Your task to perform on an android device: find which apps use the phone's location Image 0: 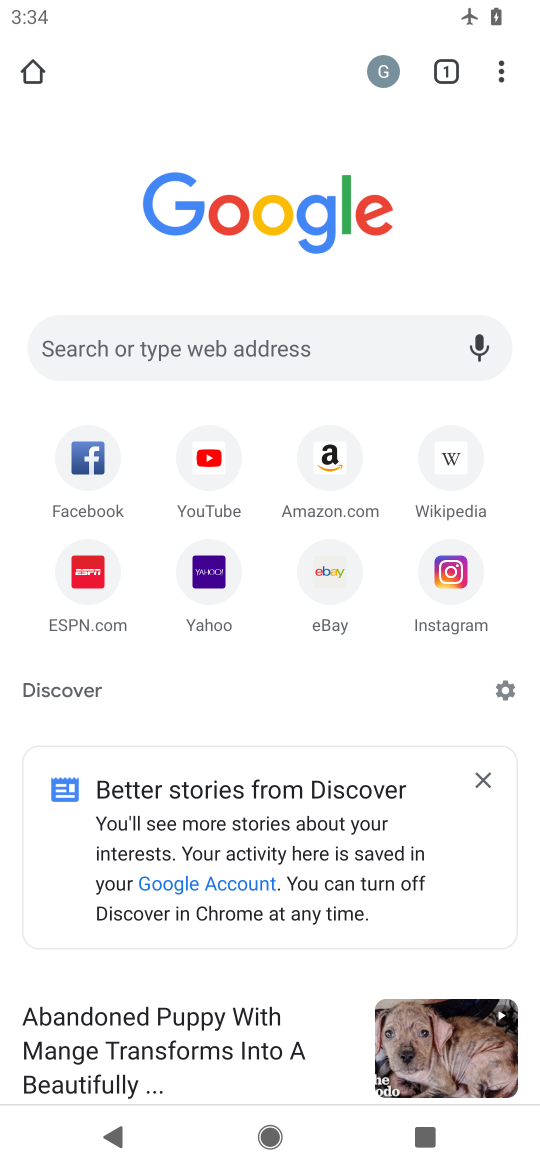
Step 0: press back button
Your task to perform on an android device: find which apps use the phone's location Image 1: 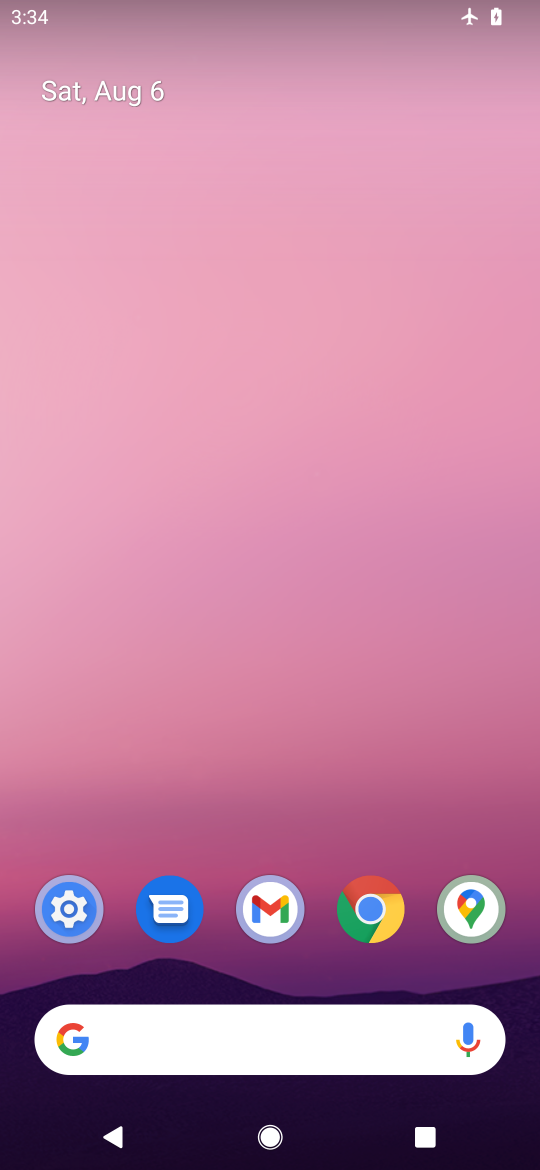
Step 1: click (27, 897)
Your task to perform on an android device: find which apps use the phone's location Image 2: 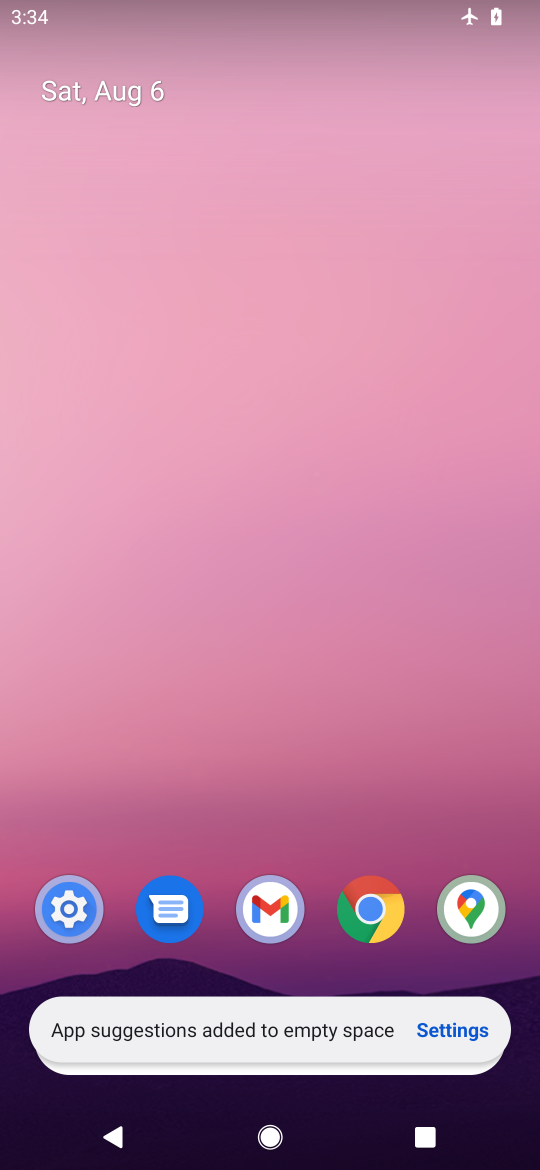
Step 2: click (73, 905)
Your task to perform on an android device: find which apps use the phone's location Image 3: 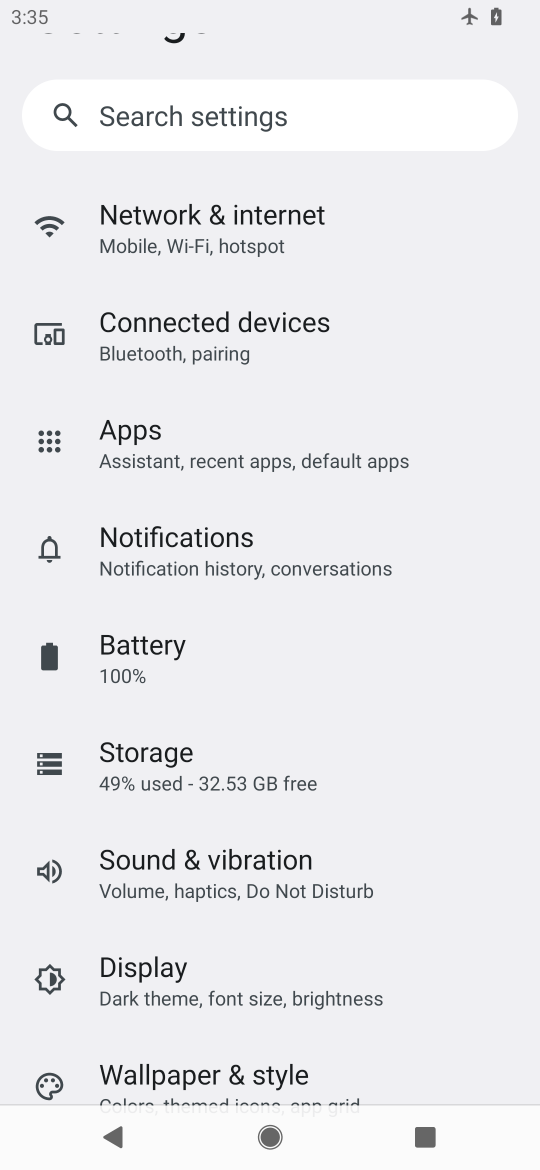
Step 3: drag from (245, 1029) to (433, 287)
Your task to perform on an android device: find which apps use the phone's location Image 4: 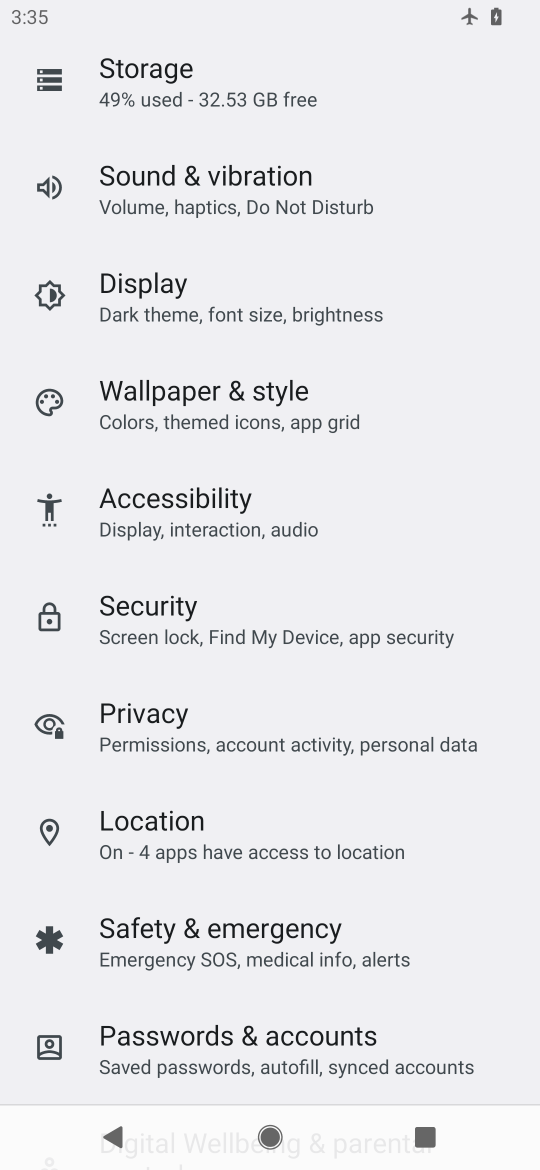
Step 4: click (184, 821)
Your task to perform on an android device: find which apps use the phone's location Image 5: 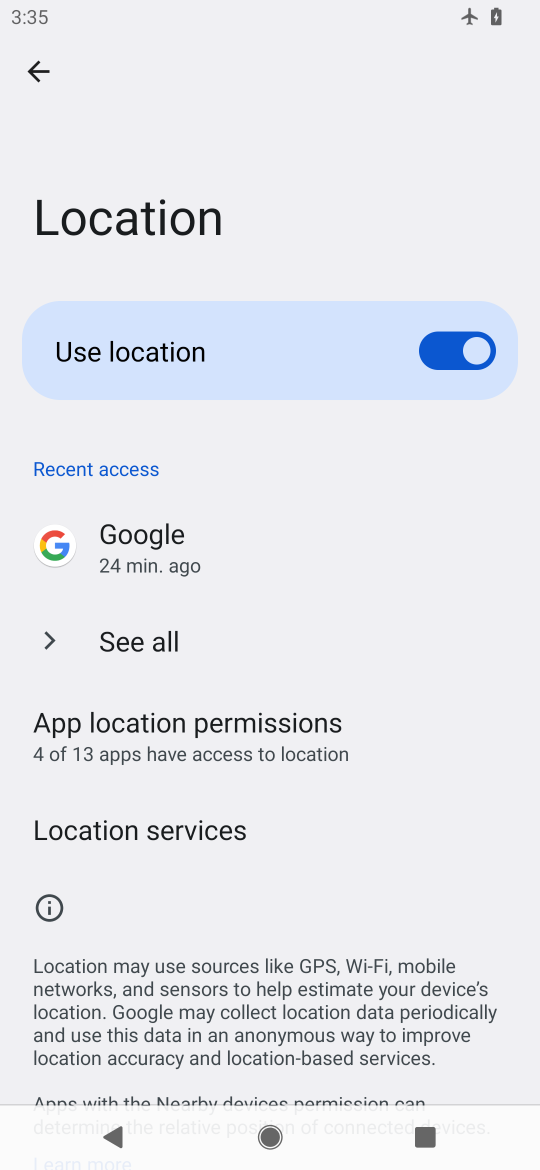
Step 5: click (164, 737)
Your task to perform on an android device: find which apps use the phone's location Image 6: 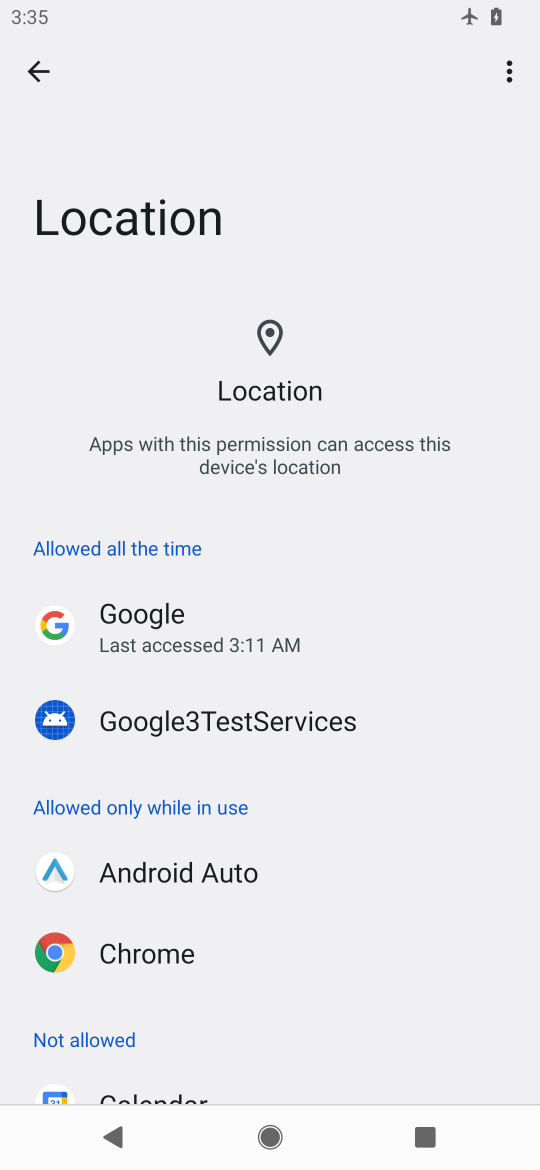
Step 6: task complete